Your task to perform on an android device: Open Wikipedia Image 0: 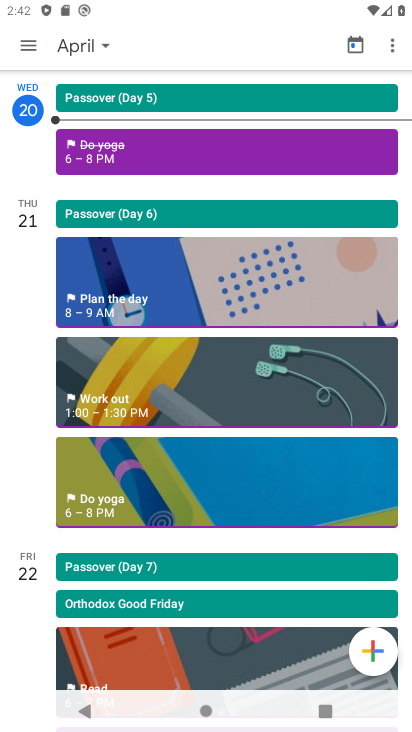
Step 0: press home button
Your task to perform on an android device: Open Wikipedia Image 1: 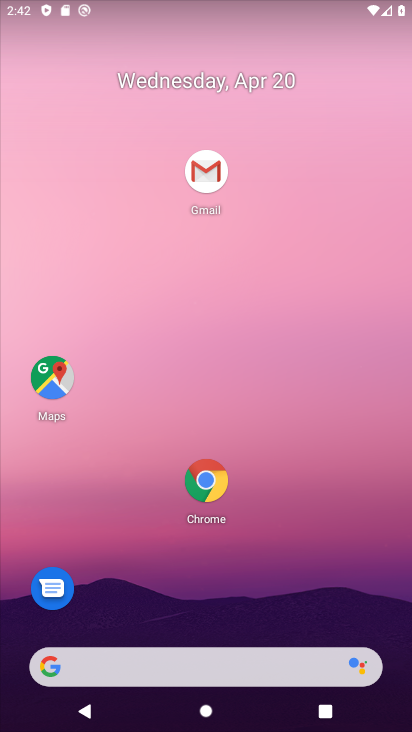
Step 1: drag from (206, 544) to (41, 133)
Your task to perform on an android device: Open Wikipedia Image 2: 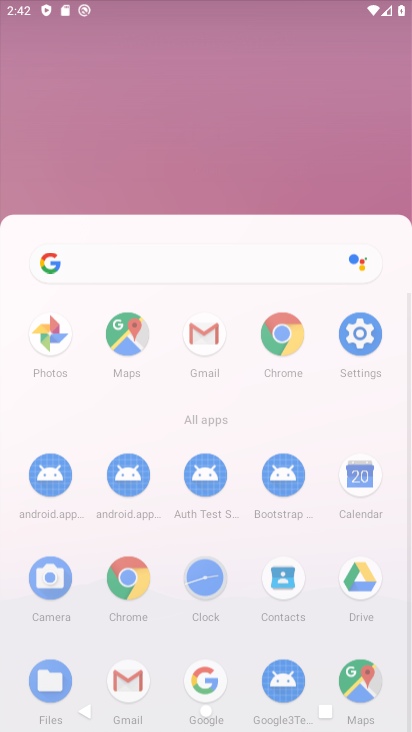
Step 2: drag from (251, 587) to (157, 116)
Your task to perform on an android device: Open Wikipedia Image 3: 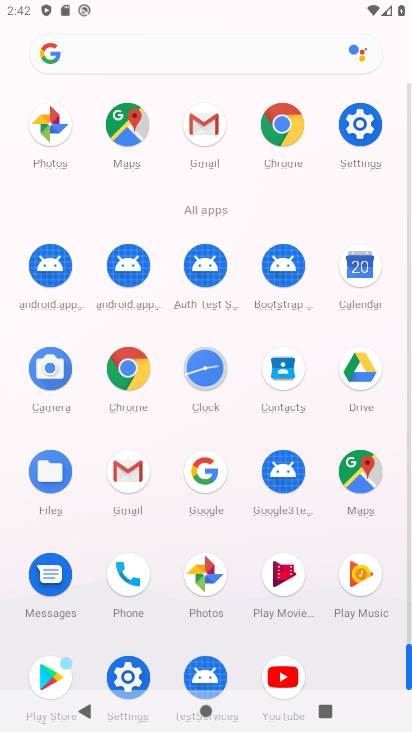
Step 3: click (278, 121)
Your task to perform on an android device: Open Wikipedia Image 4: 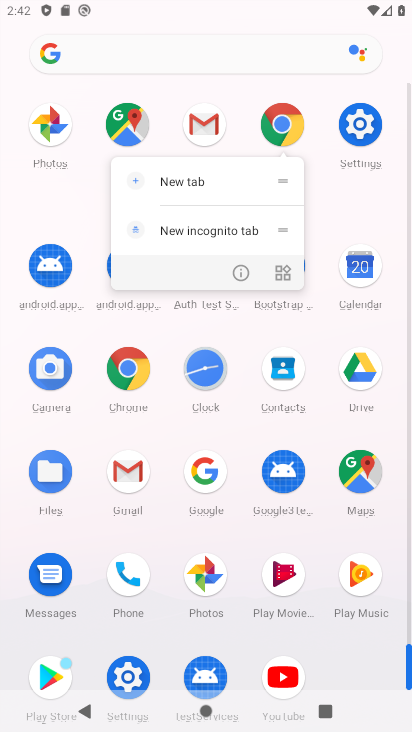
Step 4: drag from (278, 121) to (301, 172)
Your task to perform on an android device: Open Wikipedia Image 5: 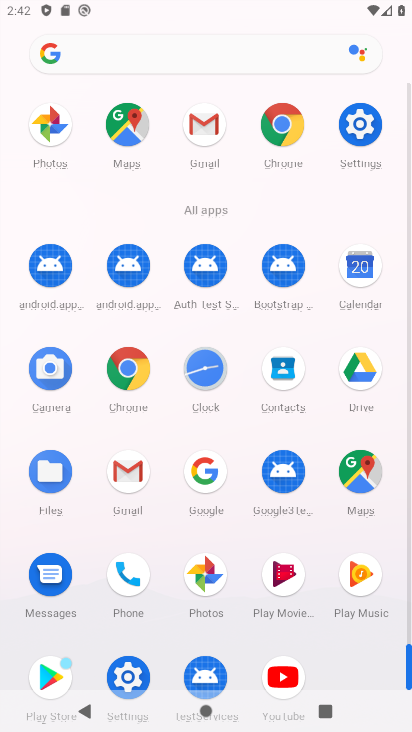
Step 5: click (276, 124)
Your task to perform on an android device: Open Wikipedia Image 6: 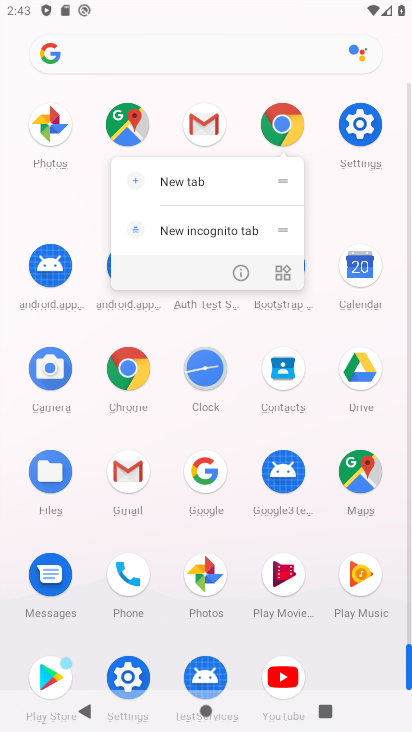
Step 6: click (193, 179)
Your task to perform on an android device: Open Wikipedia Image 7: 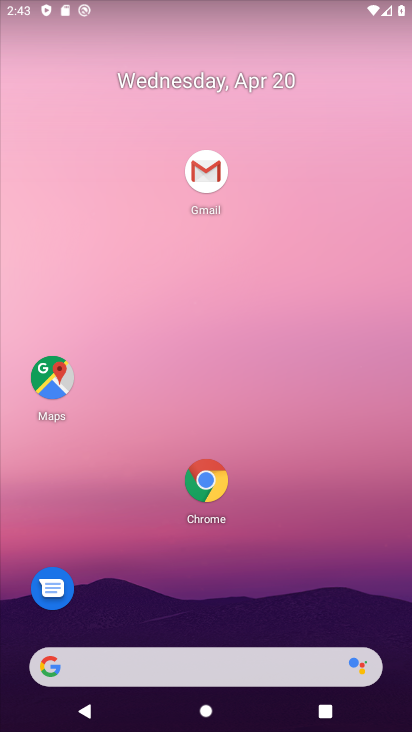
Step 7: drag from (293, 526) to (167, 179)
Your task to perform on an android device: Open Wikipedia Image 8: 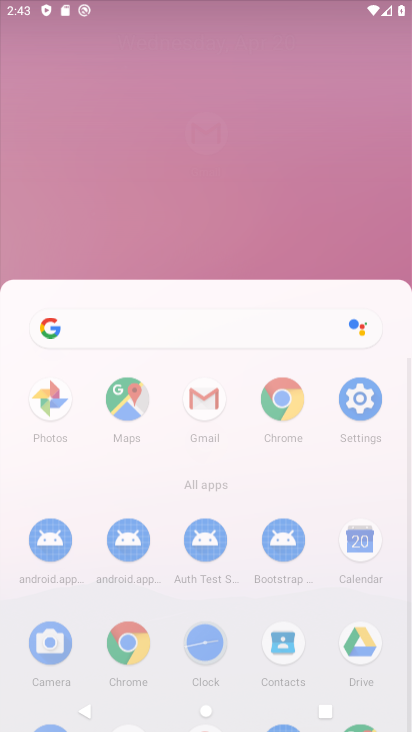
Step 8: click (222, 246)
Your task to perform on an android device: Open Wikipedia Image 9: 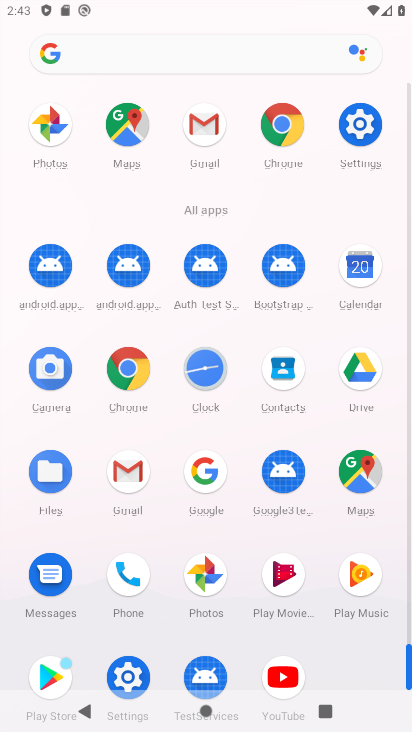
Step 9: click (277, 124)
Your task to perform on an android device: Open Wikipedia Image 10: 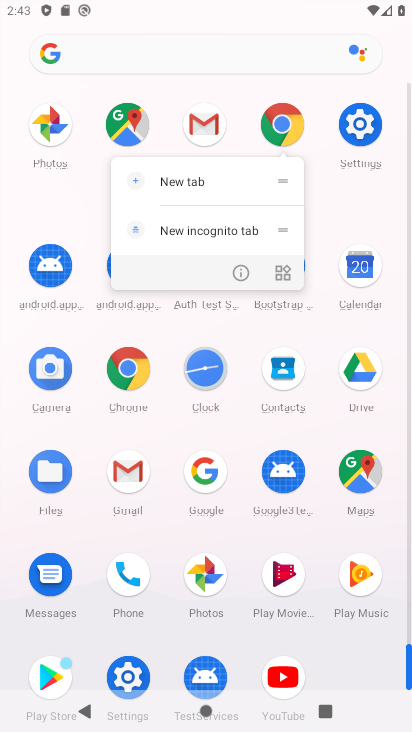
Step 10: click (283, 117)
Your task to perform on an android device: Open Wikipedia Image 11: 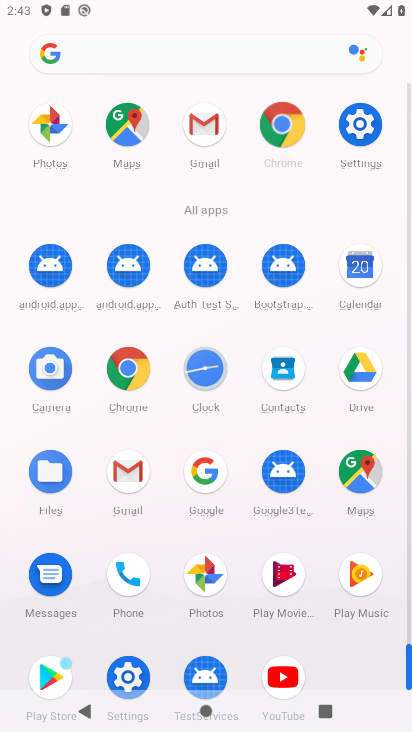
Step 11: click (285, 109)
Your task to perform on an android device: Open Wikipedia Image 12: 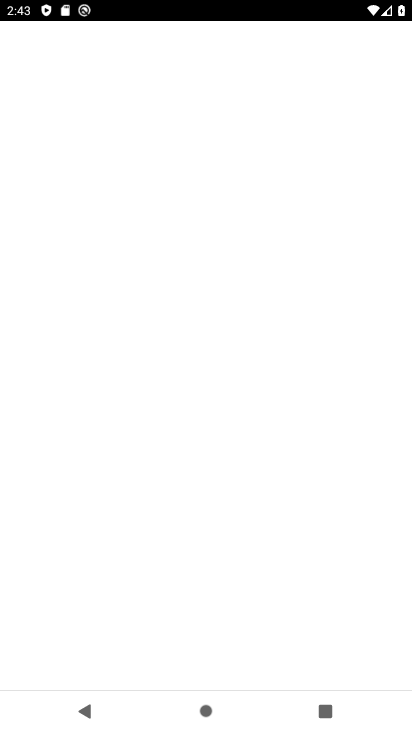
Step 12: click (288, 123)
Your task to perform on an android device: Open Wikipedia Image 13: 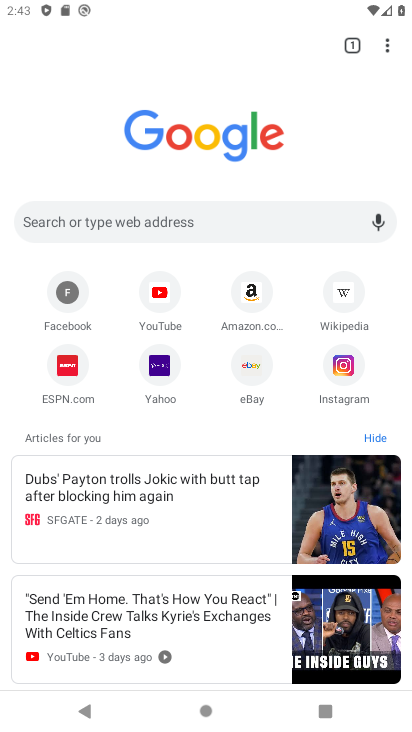
Step 13: click (342, 291)
Your task to perform on an android device: Open Wikipedia Image 14: 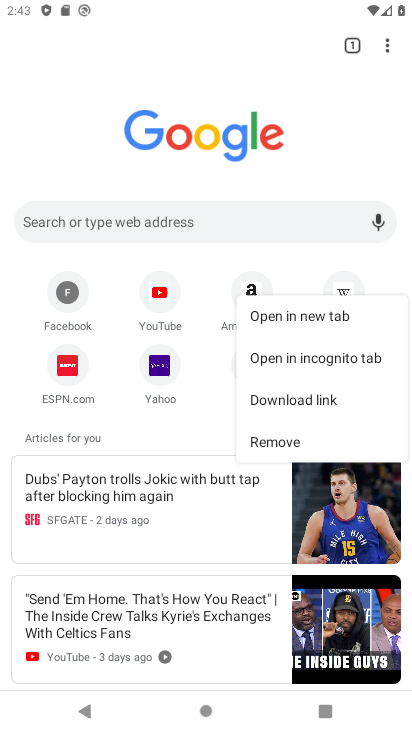
Step 14: click (314, 255)
Your task to perform on an android device: Open Wikipedia Image 15: 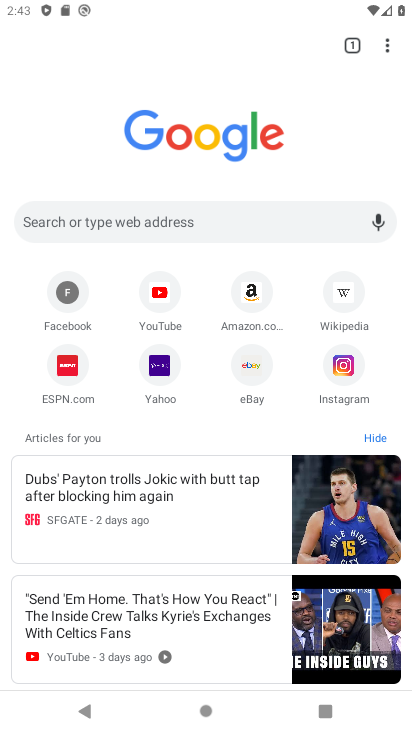
Step 15: click (336, 321)
Your task to perform on an android device: Open Wikipedia Image 16: 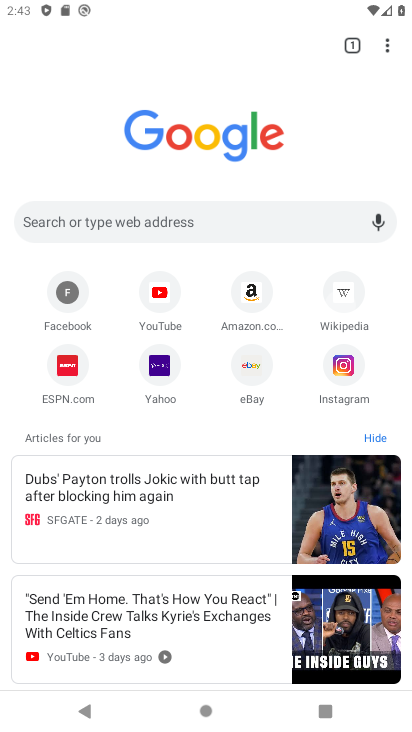
Step 16: click (332, 306)
Your task to perform on an android device: Open Wikipedia Image 17: 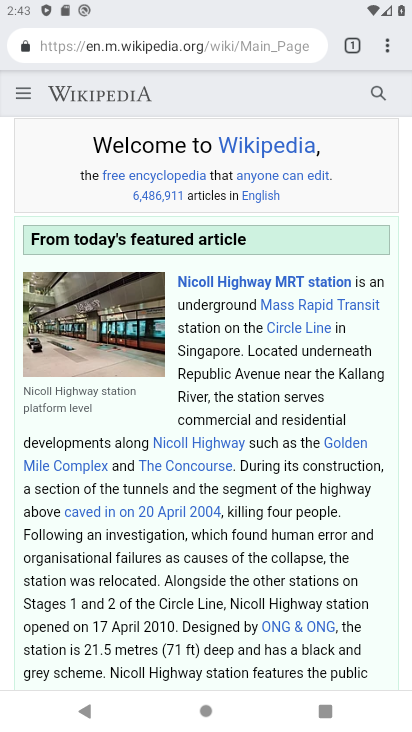
Step 17: task complete